Your task to perform on an android device: move an email to a new category in the gmail app Image 0: 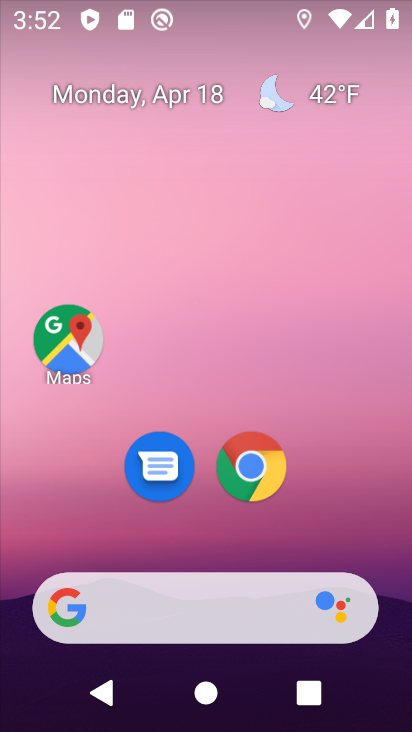
Step 0: drag from (407, 618) to (396, 272)
Your task to perform on an android device: move an email to a new category in the gmail app Image 1: 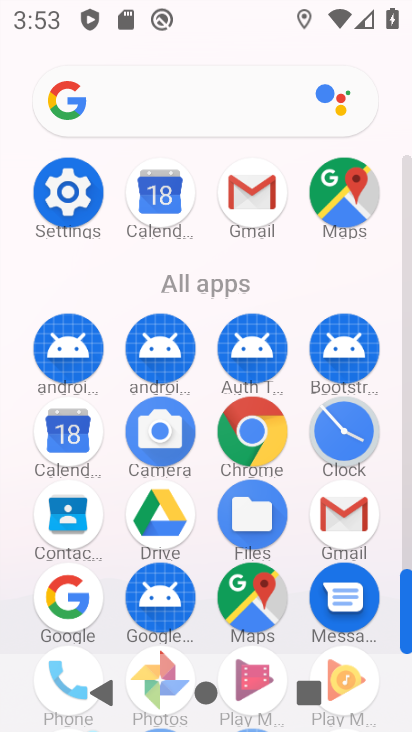
Step 1: click (337, 514)
Your task to perform on an android device: move an email to a new category in the gmail app Image 2: 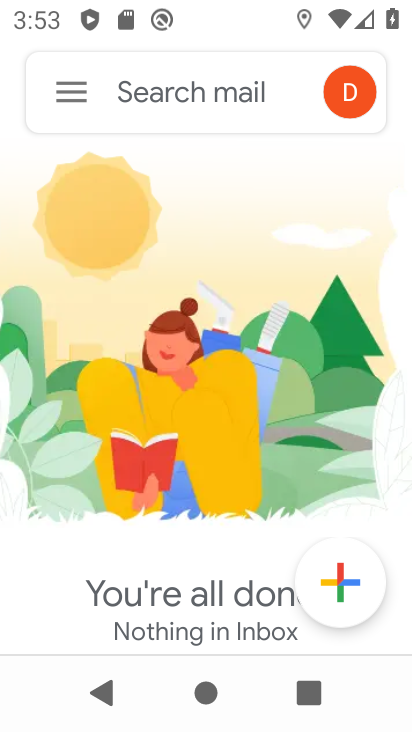
Step 2: click (66, 88)
Your task to perform on an android device: move an email to a new category in the gmail app Image 3: 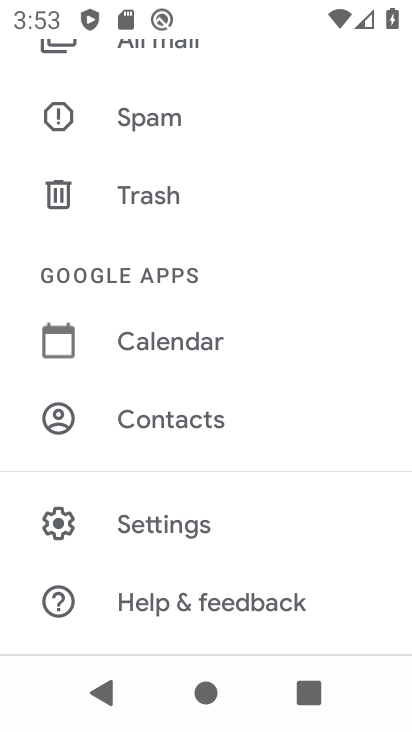
Step 3: drag from (238, 153) to (242, 433)
Your task to perform on an android device: move an email to a new category in the gmail app Image 4: 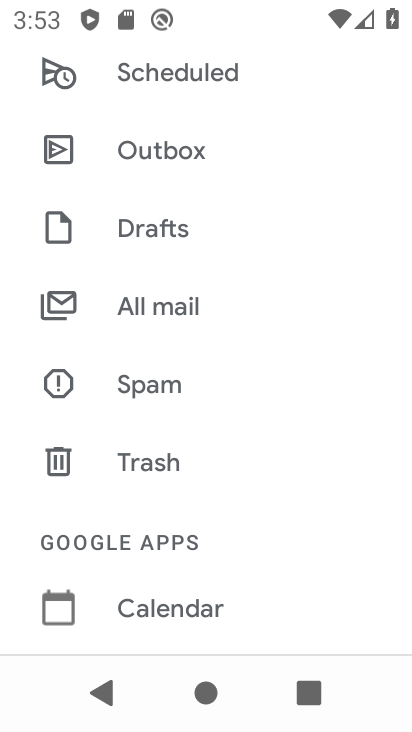
Step 4: click (114, 303)
Your task to perform on an android device: move an email to a new category in the gmail app Image 5: 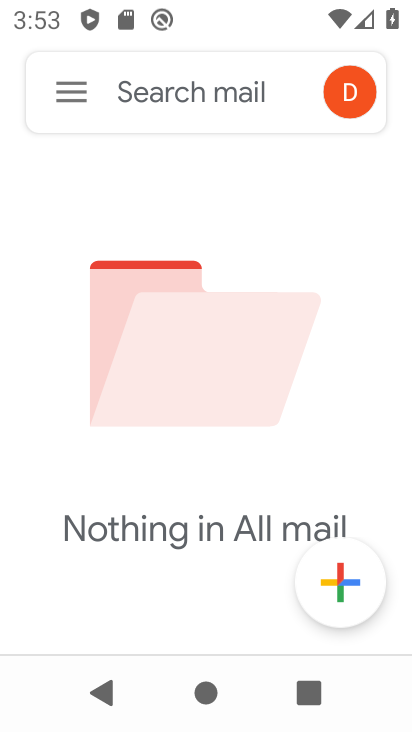
Step 5: task complete